Your task to perform on an android device: Open battery settings Image 0: 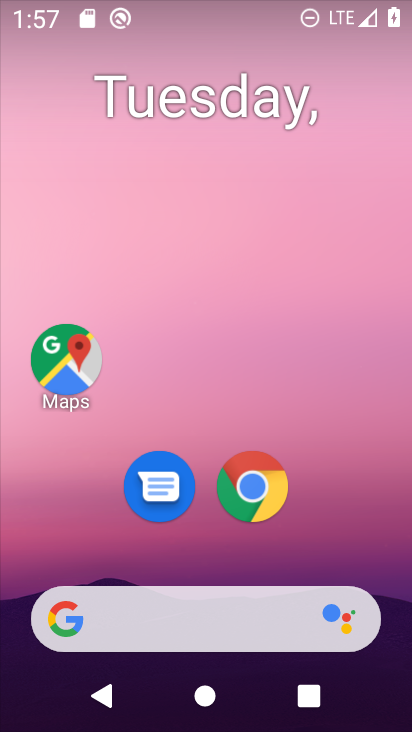
Step 0: drag from (201, 573) to (261, 14)
Your task to perform on an android device: Open battery settings Image 1: 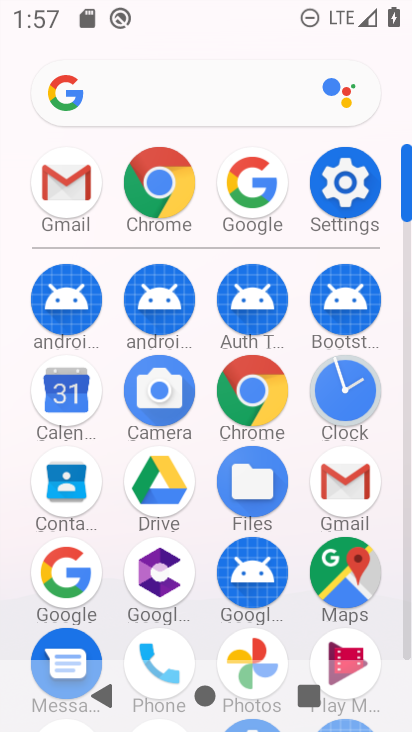
Step 1: drag from (207, 271) to (195, 36)
Your task to perform on an android device: Open battery settings Image 2: 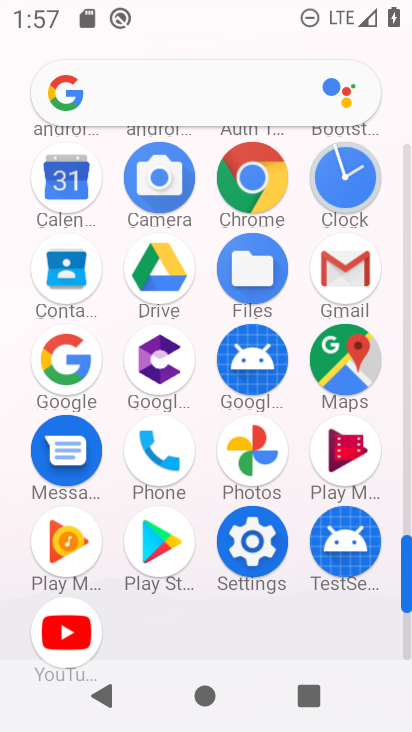
Step 2: click (271, 559)
Your task to perform on an android device: Open battery settings Image 3: 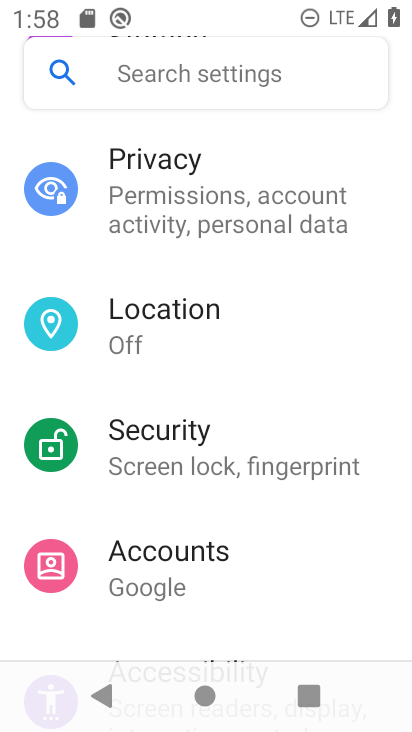
Step 3: drag from (238, 275) to (300, 640)
Your task to perform on an android device: Open battery settings Image 4: 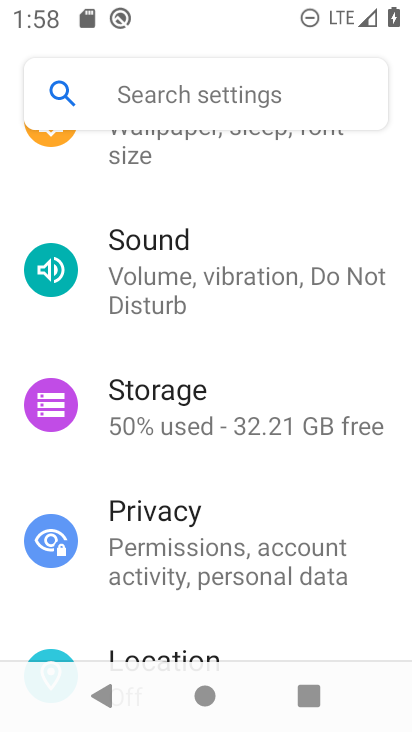
Step 4: drag from (239, 421) to (286, 726)
Your task to perform on an android device: Open battery settings Image 5: 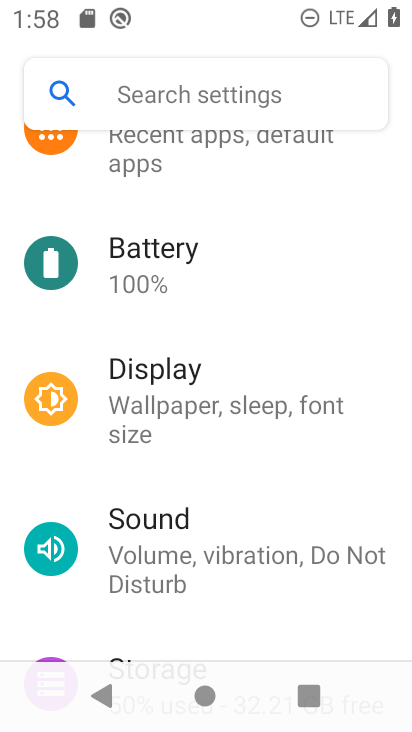
Step 5: click (220, 291)
Your task to perform on an android device: Open battery settings Image 6: 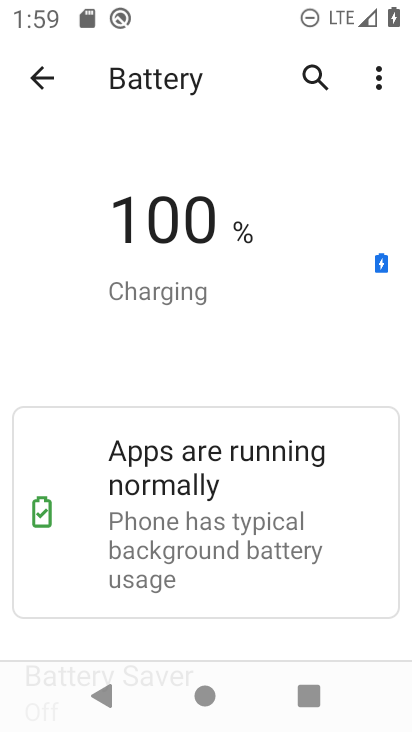
Step 6: task complete